Your task to perform on an android device: open app "Yahoo Mail" Image 0: 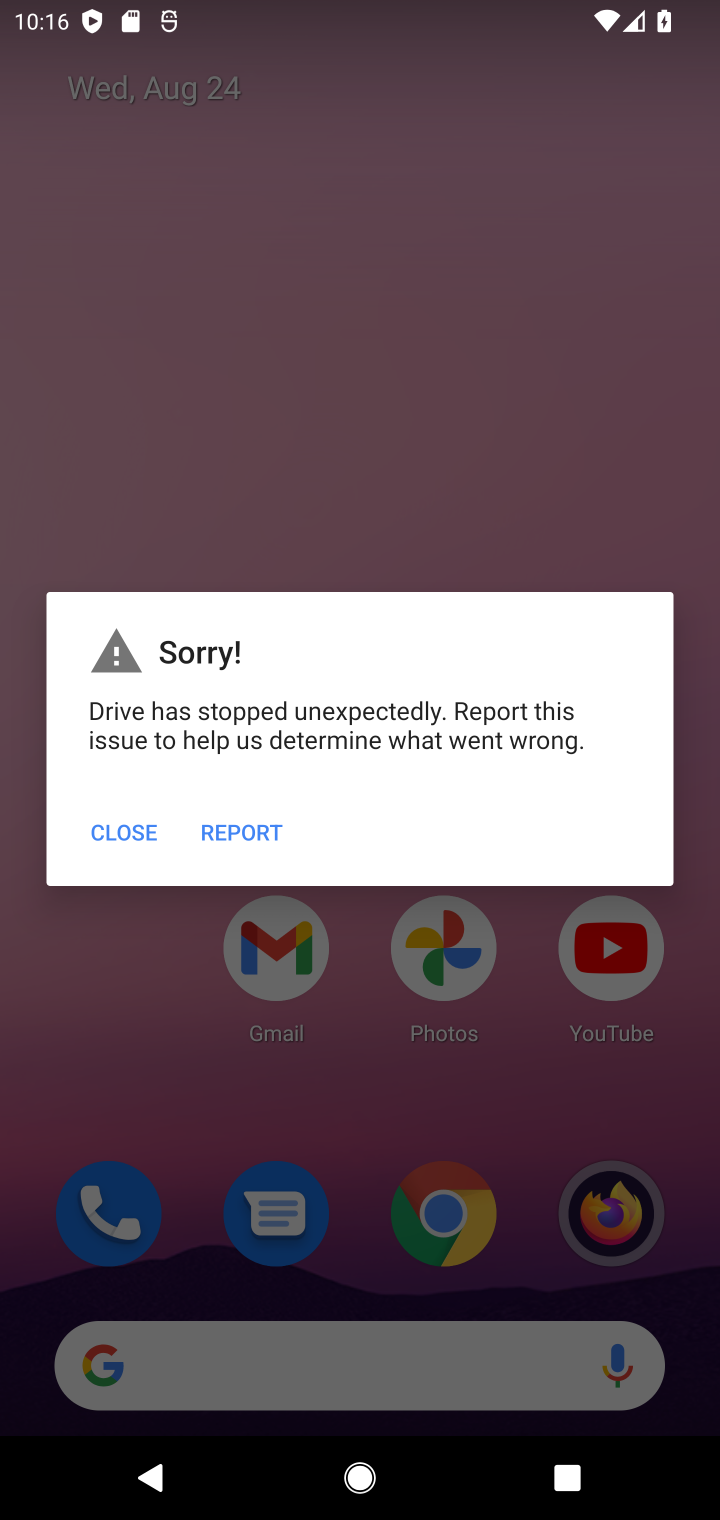
Step 0: click (121, 829)
Your task to perform on an android device: open app "Yahoo Mail" Image 1: 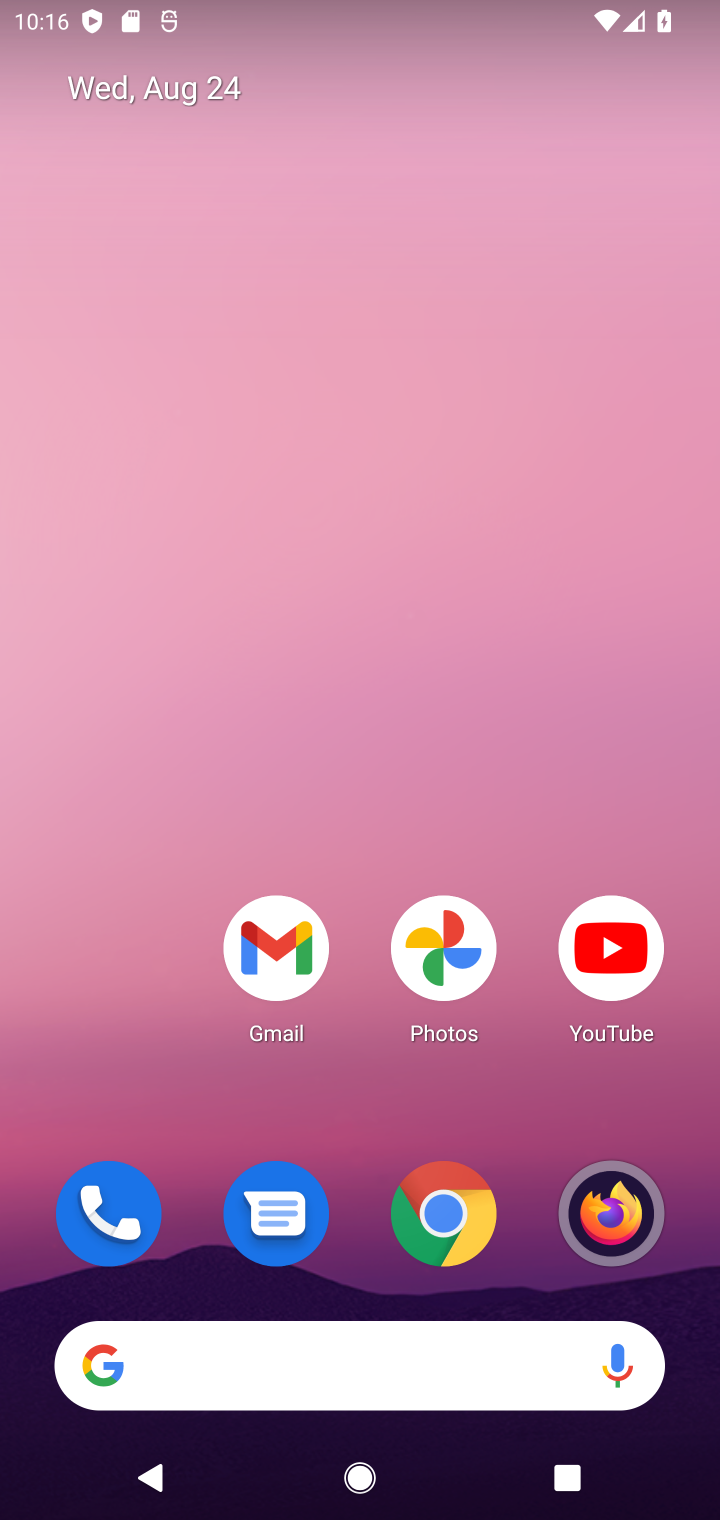
Step 1: drag from (308, 1219) to (452, 4)
Your task to perform on an android device: open app "Yahoo Mail" Image 2: 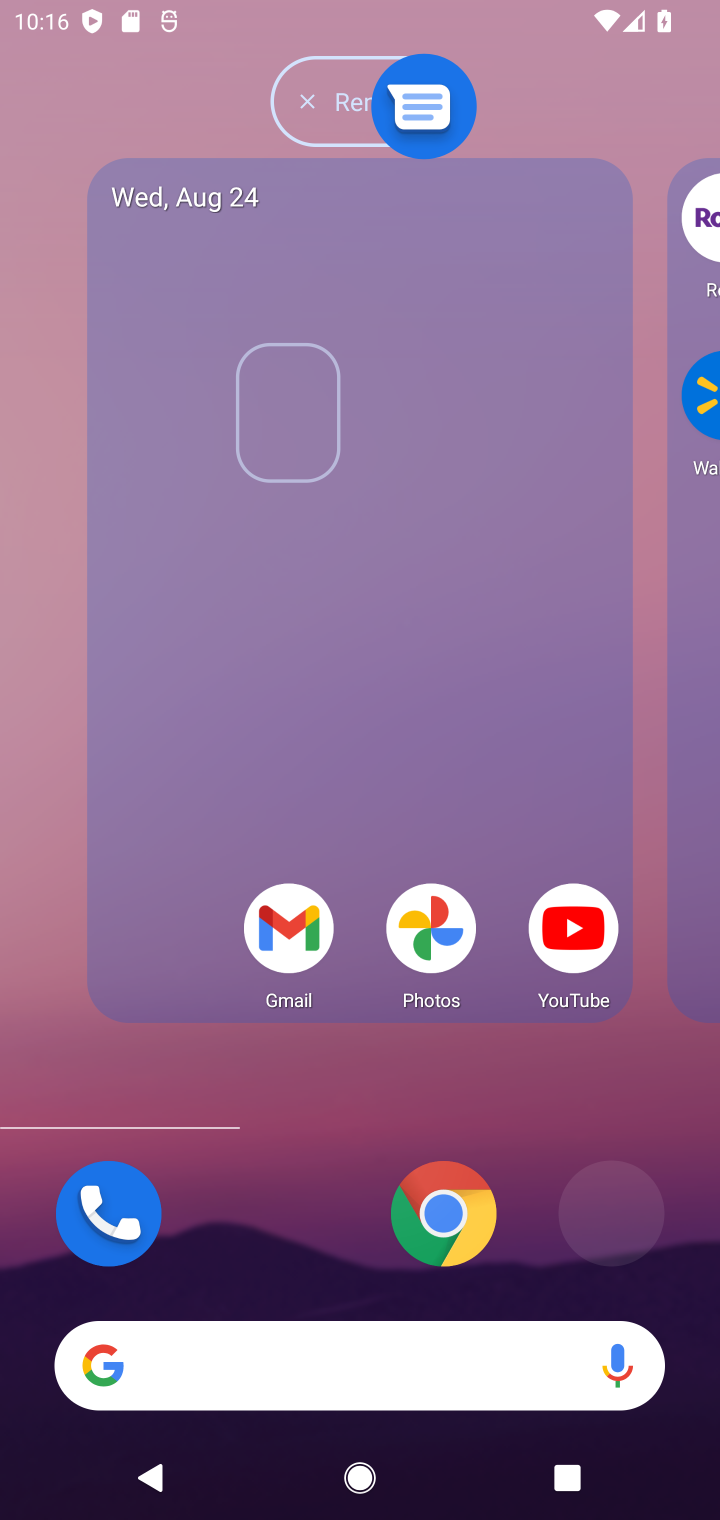
Step 2: click (438, 594)
Your task to perform on an android device: open app "Yahoo Mail" Image 3: 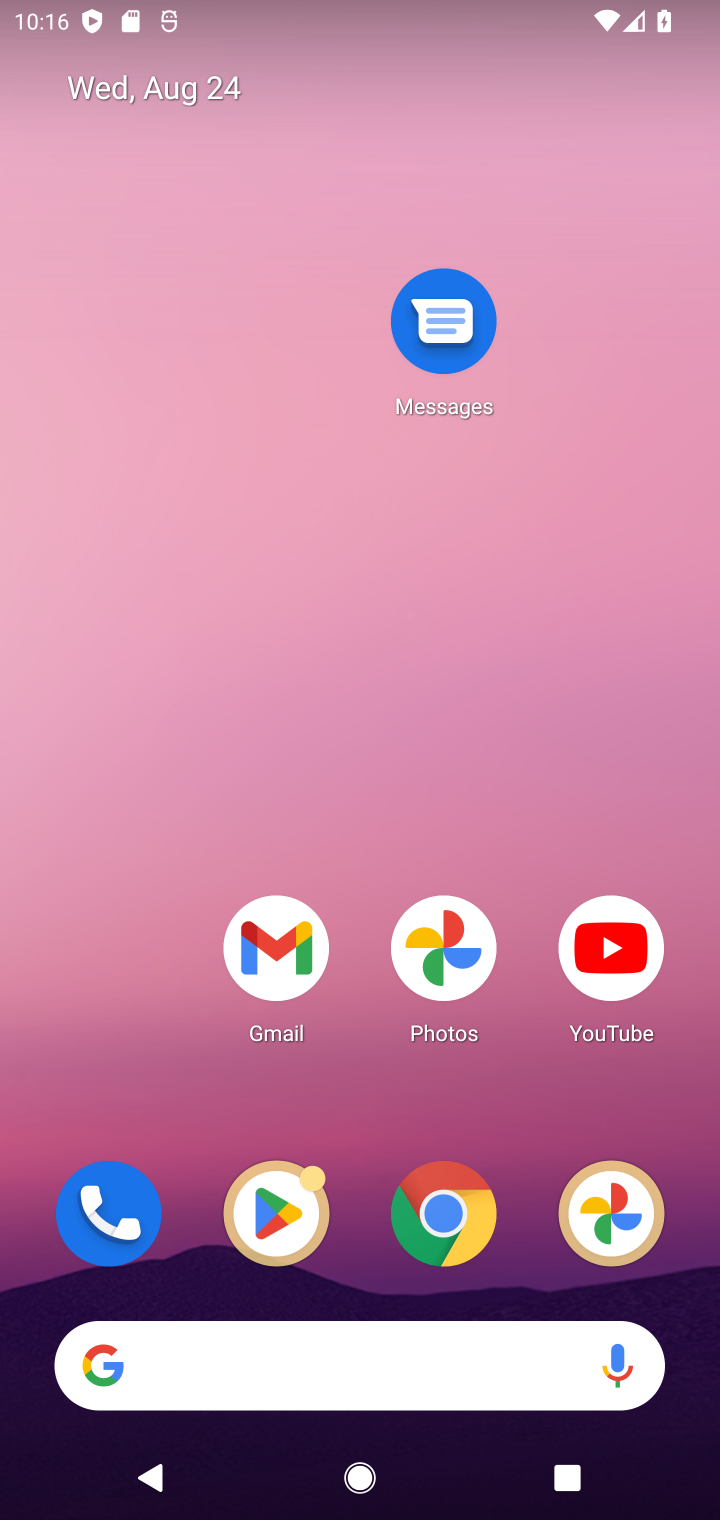
Step 3: drag from (430, 1128) to (458, 6)
Your task to perform on an android device: open app "Yahoo Mail" Image 4: 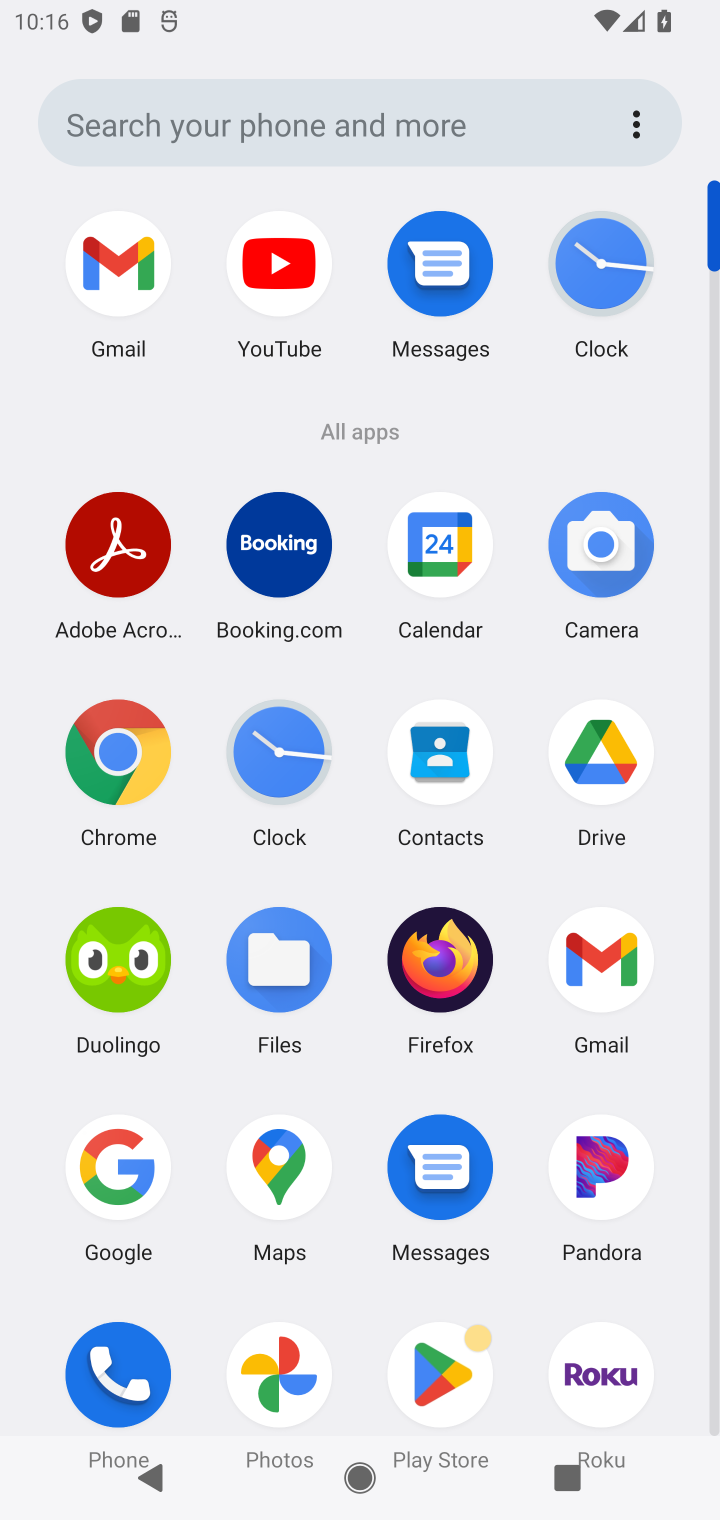
Step 4: drag from (328, 1165) to (366, 589)
Your task to perform on an android device: open app "Yahoo Mail" Image 5: 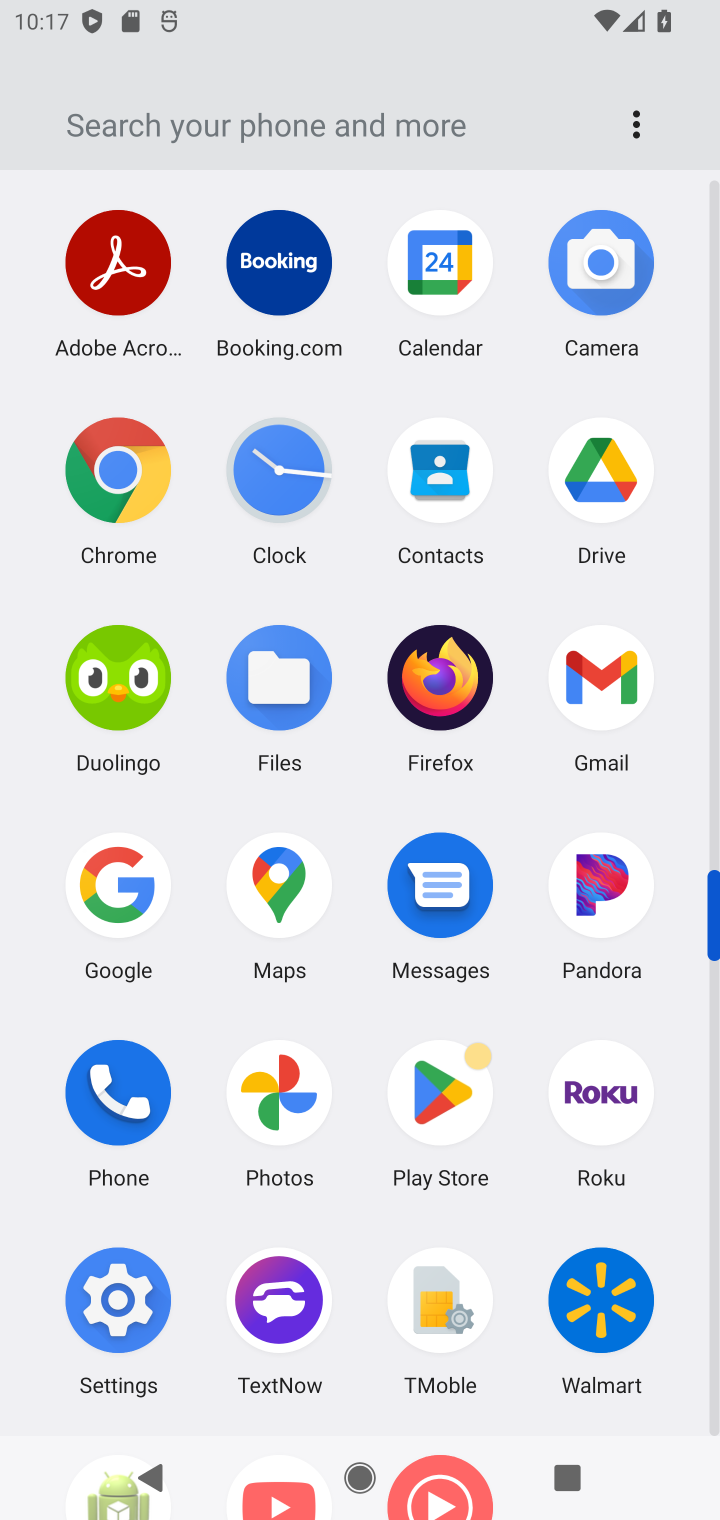
Step 5: click (446, 1114)
Your task to perform on an android device: open app "Yahoo Mail" Image 6: 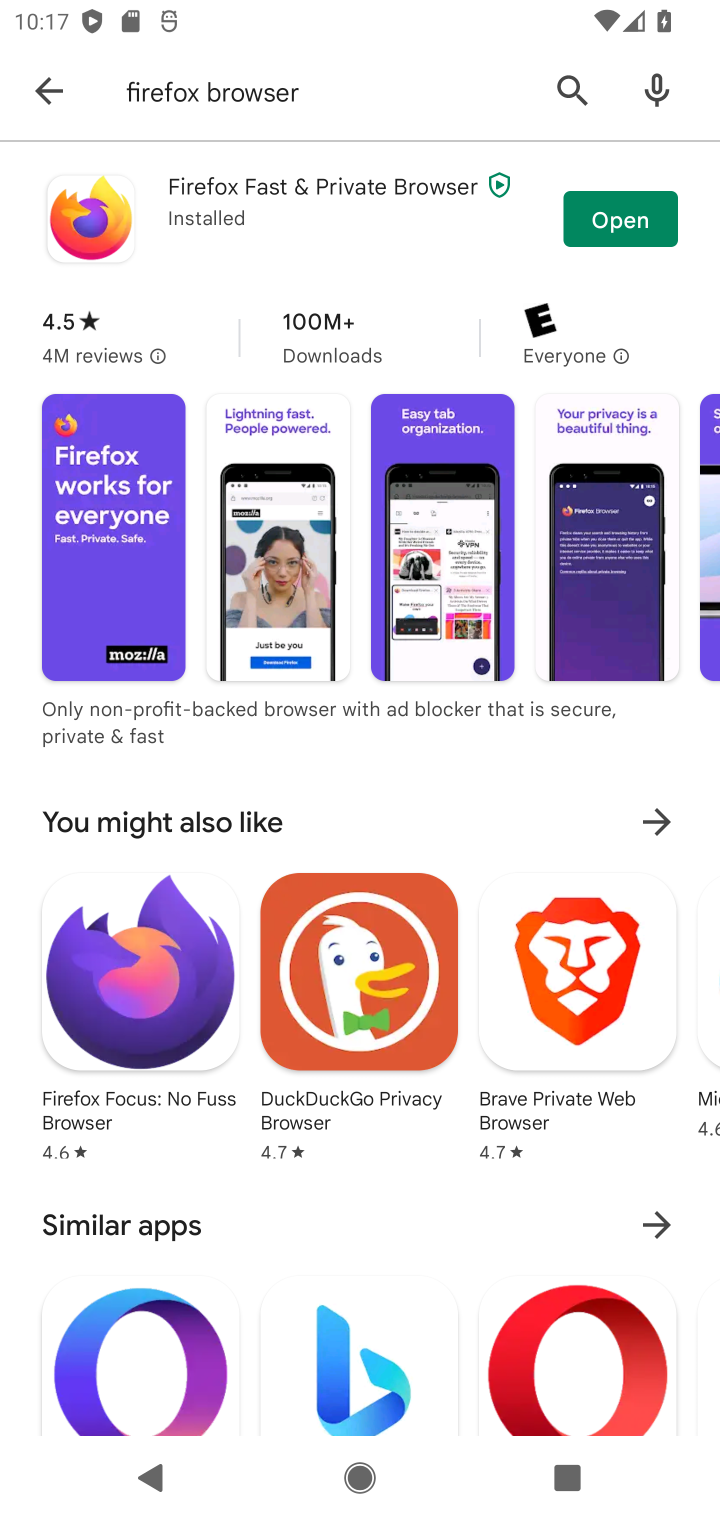
Step 6: click (250, 76)
Your task to perform on an android device: open app "Yahoo Mail" Image 7: 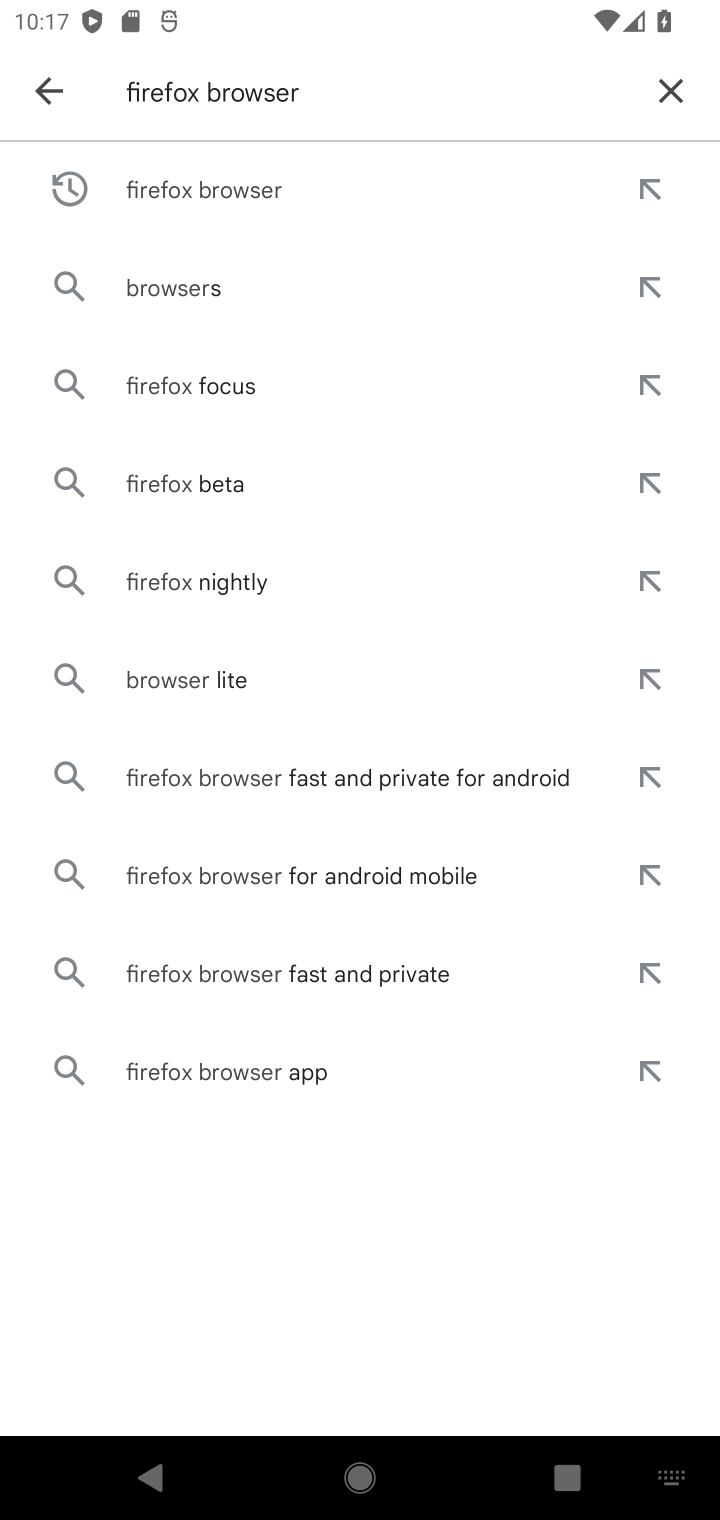
Step 7: click (660, 88)
Your task to perform on an android device: open app "Yahoo Mail" Image 8: 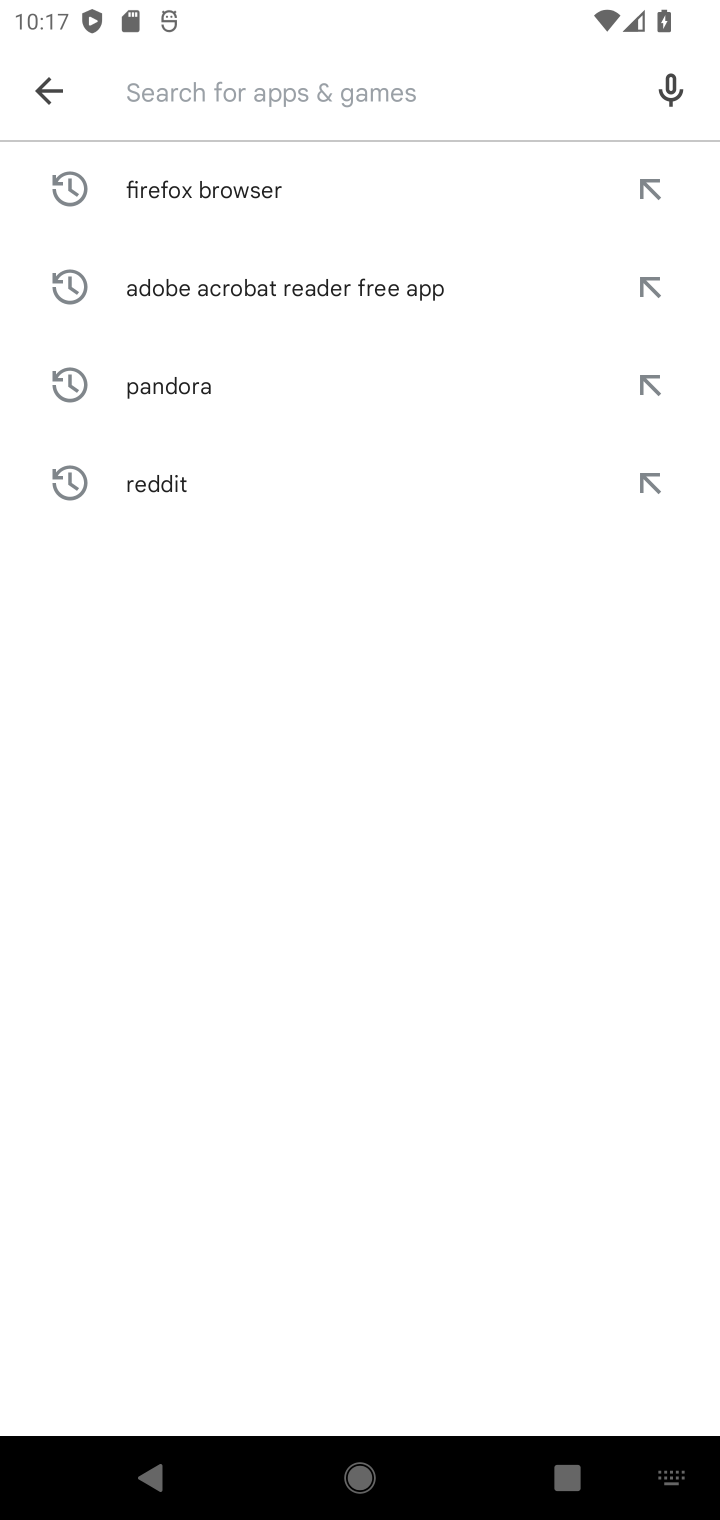
Step 8: type "Yahoo mail"
Your task to perform on an android device: open app "Yahoo Mail" Image 9: 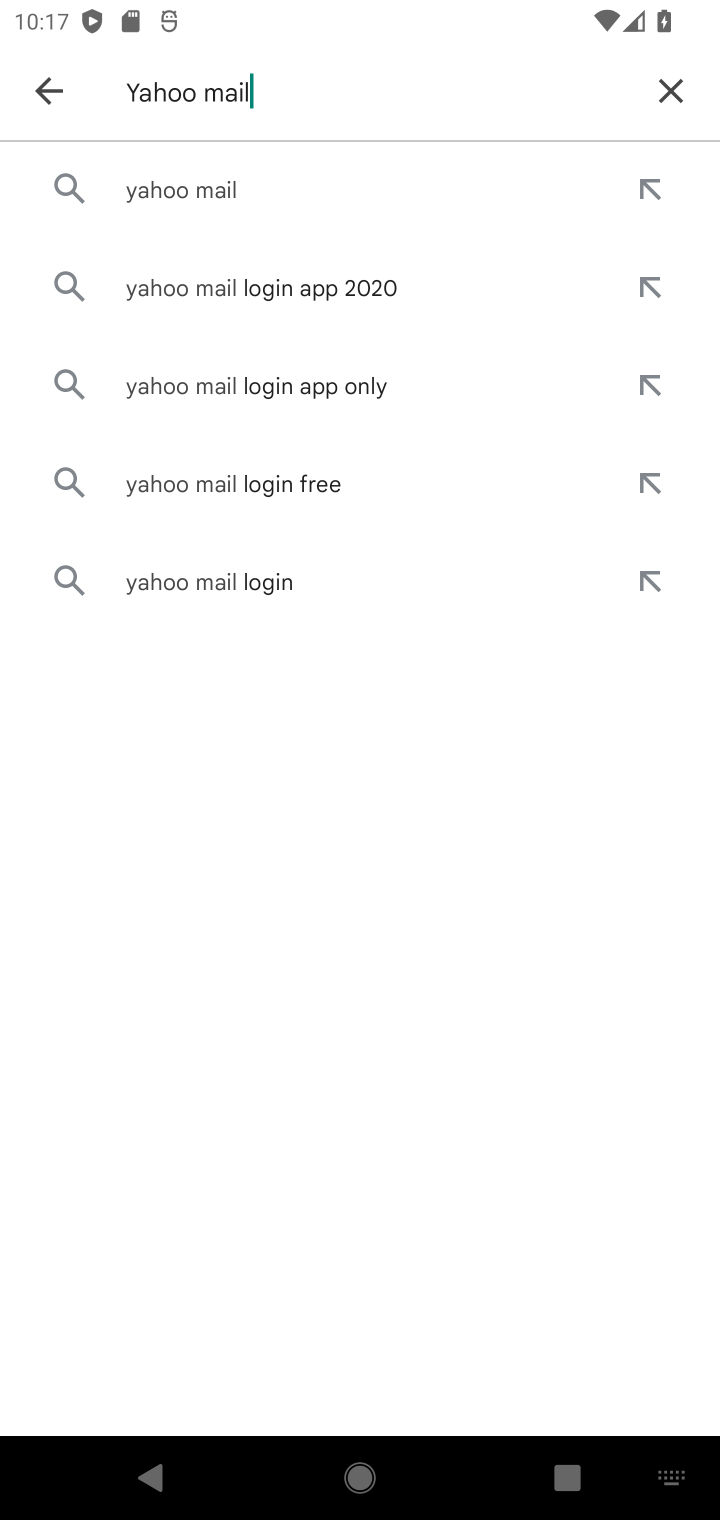
Step 9: click (223, 174)
Your task to perform on an android device: open app "Yahoo Mail" Image 10: 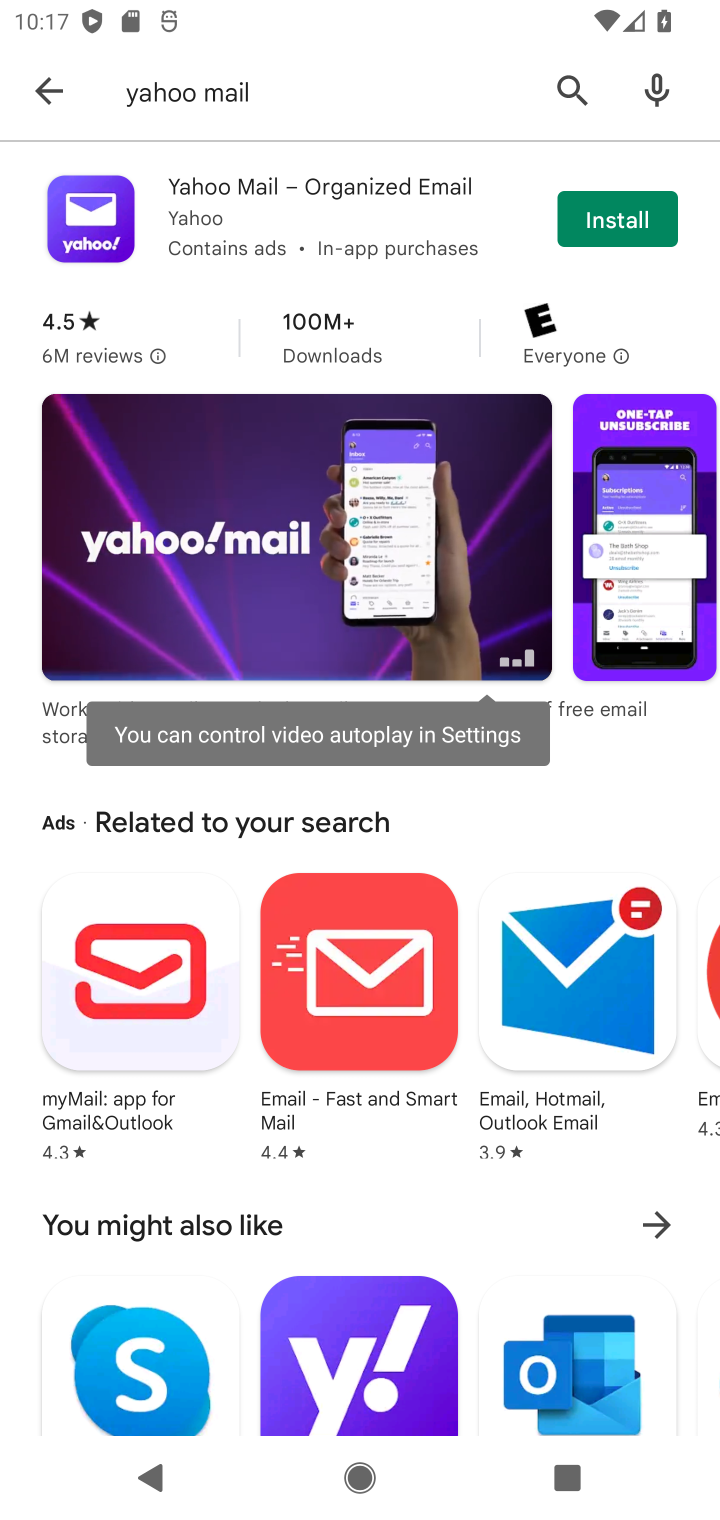
Step 10: task complete